Your task to perform on an android device: How do I get to the nearest Sprint Store? Image 0: 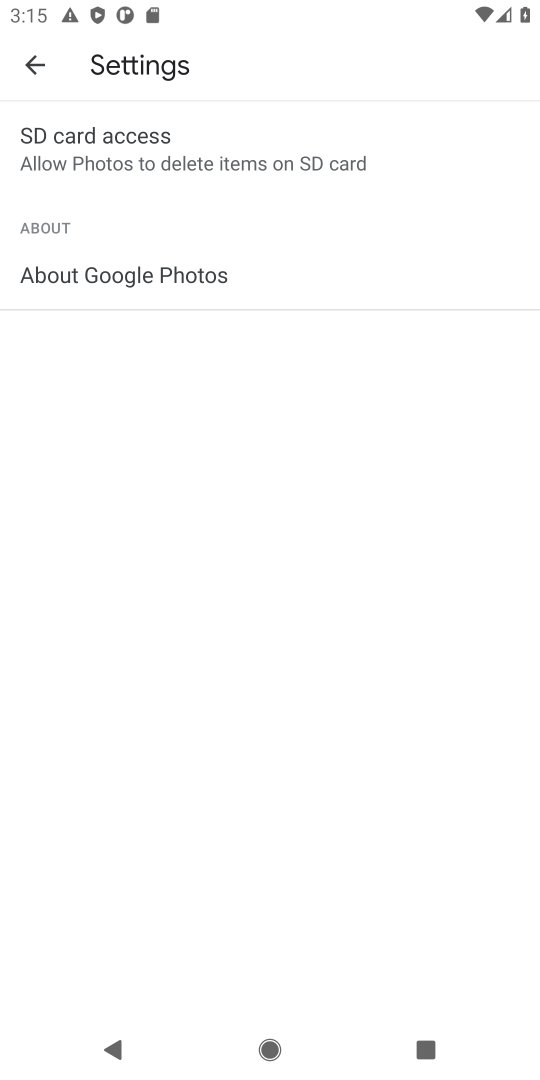
Step 0: press home button
Your task to perform on an android device: How do I get to the nearest Sprint Store? Image 1: 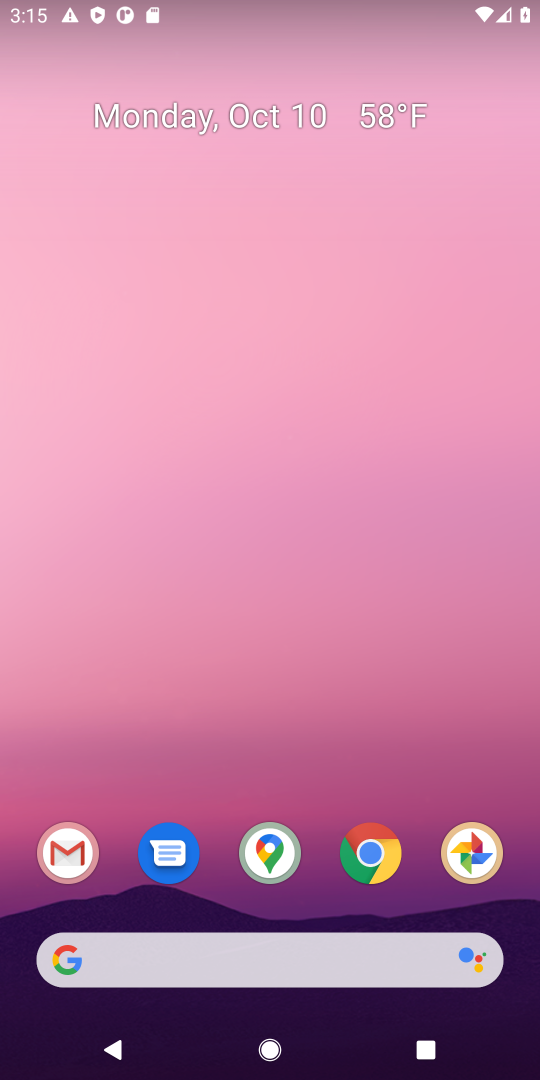
Step 1: click (245, 968)
Your task to perform on an android device: How do I get to the nearest Sprint Store? Image 2: 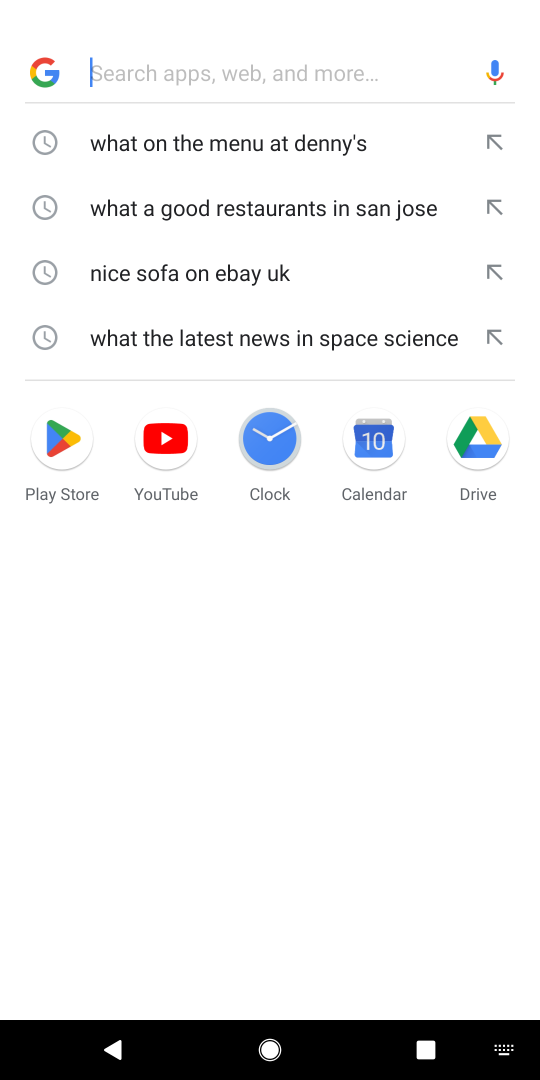
Step 2: click (174, 62)
Your task to perform on an android device: How do I get to the nearest Sprint Store? Image 3: 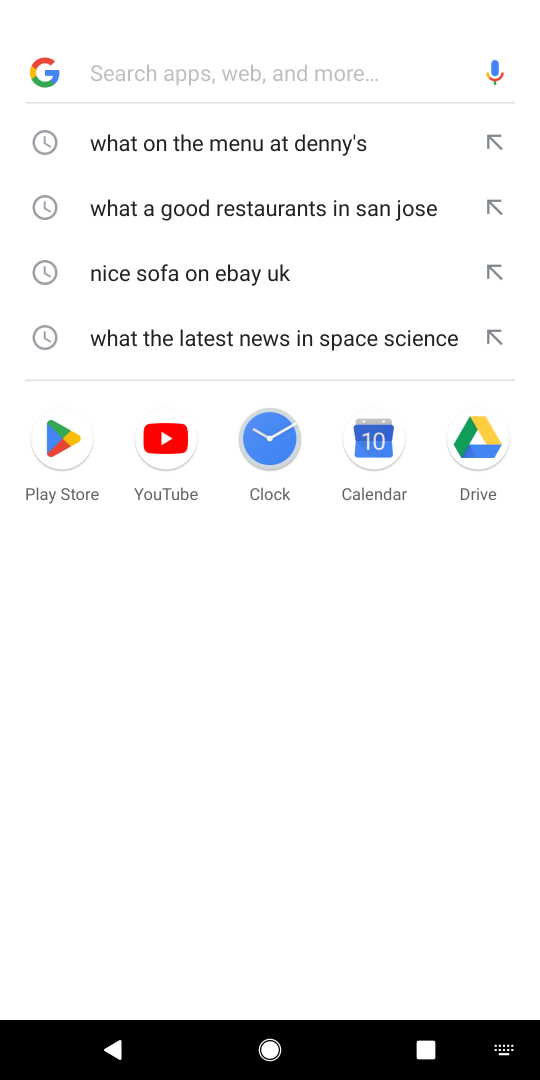
Step 3: type "How do I get to the nearest Sprint Store?"
Your task to perform on an android device: How do I get to the nearest Sprint Store? Image 4: 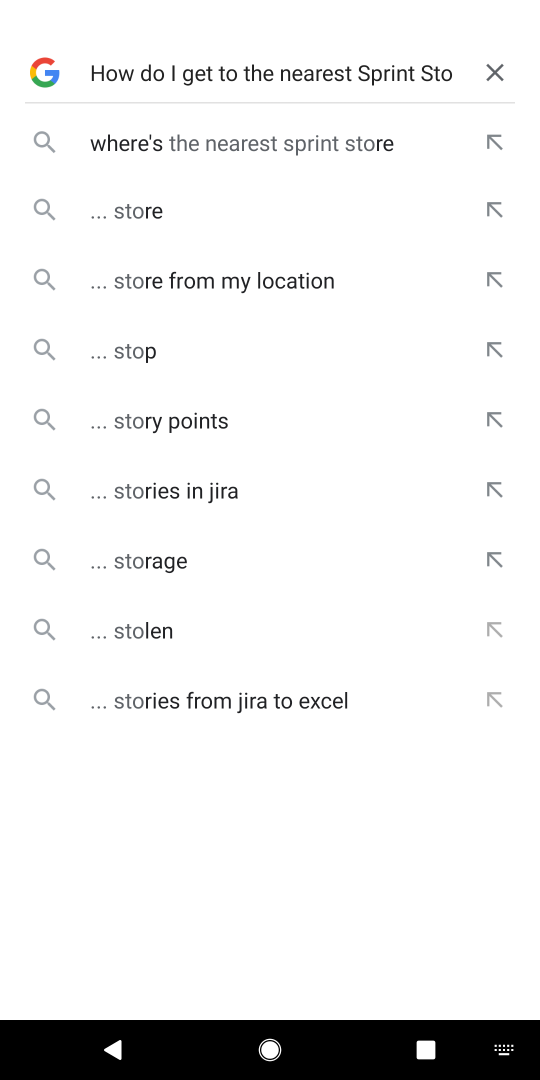
Step 4: click (310, 155)
Your task to perform on an android device: How do I get to the nearest Sprint Store? Image 5: 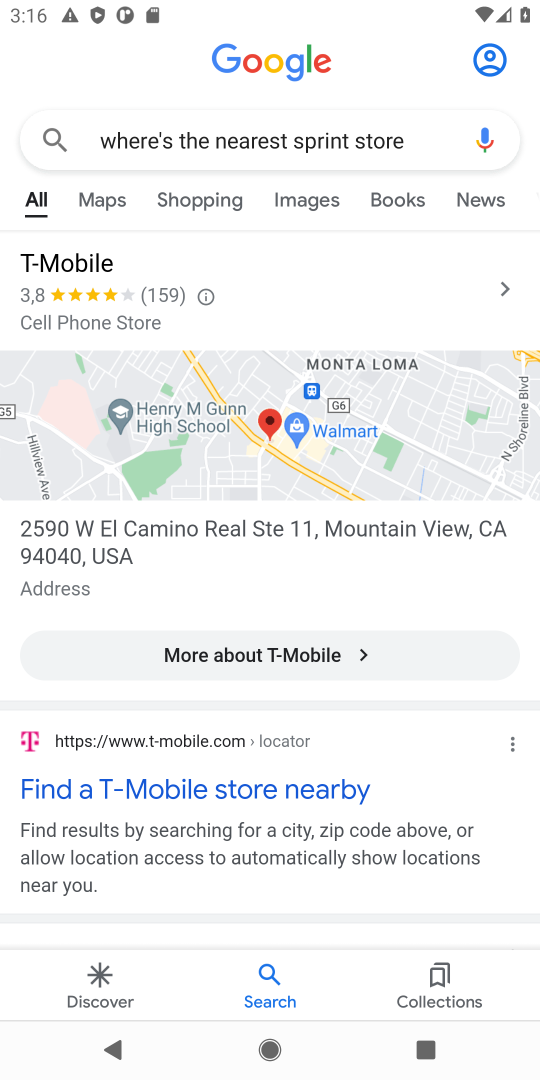
Step 5: task complete